Your task to perform on an android device: Open wifi settings Image 0: 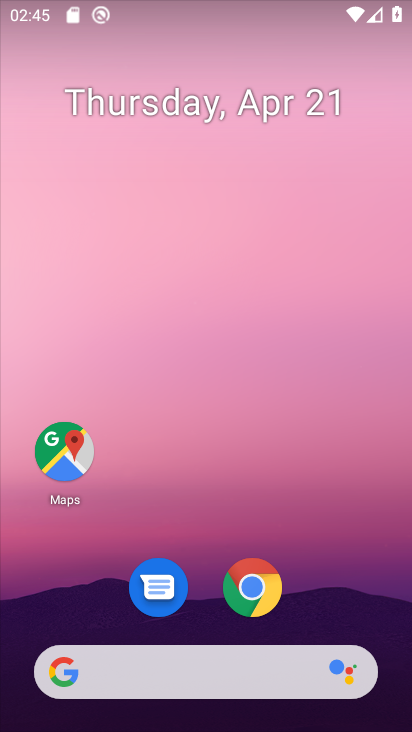
Step 0: drag from (348, 579) to (352, 147)
Your task to perform on an android device: Open wifi settings Image 1: 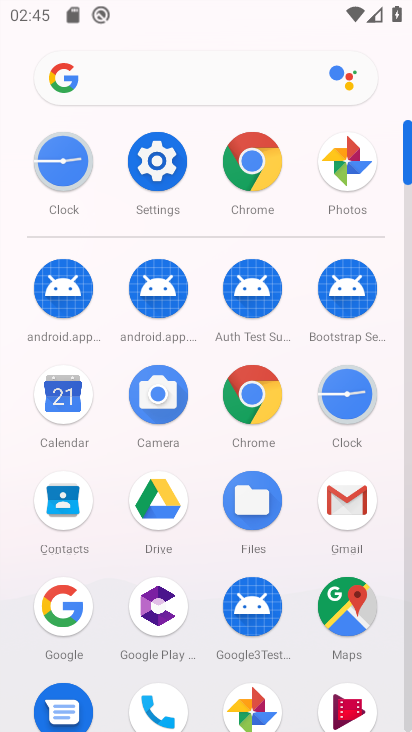
Step 1: click (160, 181)
Your task to perform on an android device: Open wifi settings Image 2: 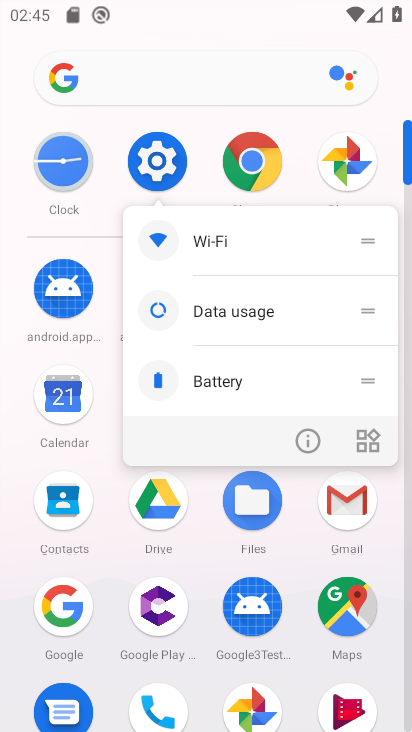
Step 2: click (160, 181)
Your task to perform on an android device: Open wifi settings Image 3: 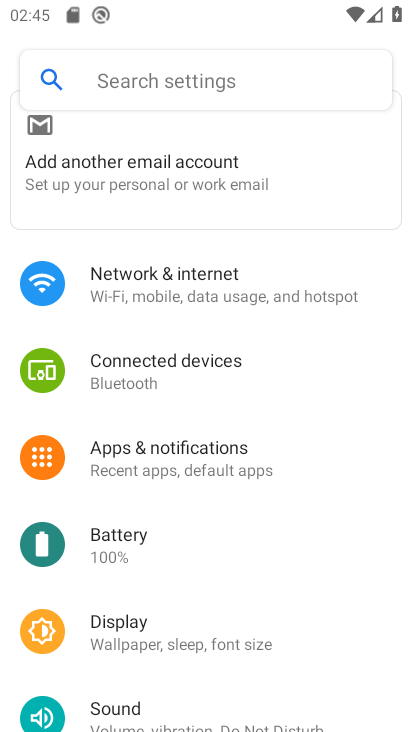
Step 3: drag from (354, 577) to (353, 385)
Your task to perform on an android device: Open wifi settings Image 4: 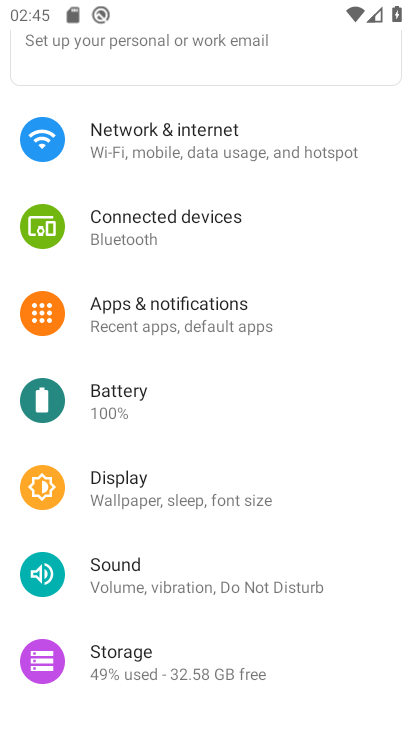
Step 4: drag from (351, 597) to (360, 371)
Your task to perform on an android device: Open wifi settings Image 5: 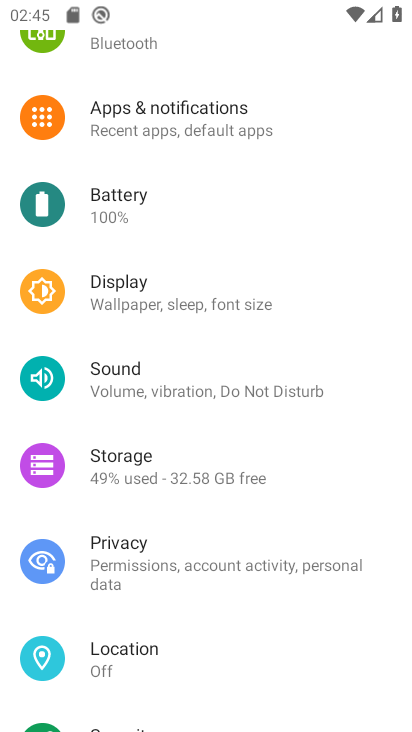
Step 5: drag from (365, 634) to (358, 430)
Your task to perform on an android device: Open wifi settings Image 6: 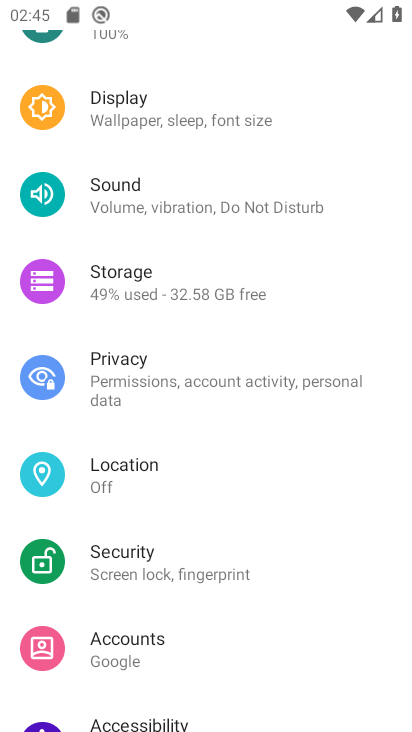
Step 6: drag from (340, 612) to (367, 404)
Your task to perform on an android device: Open wifi settings Image 7: 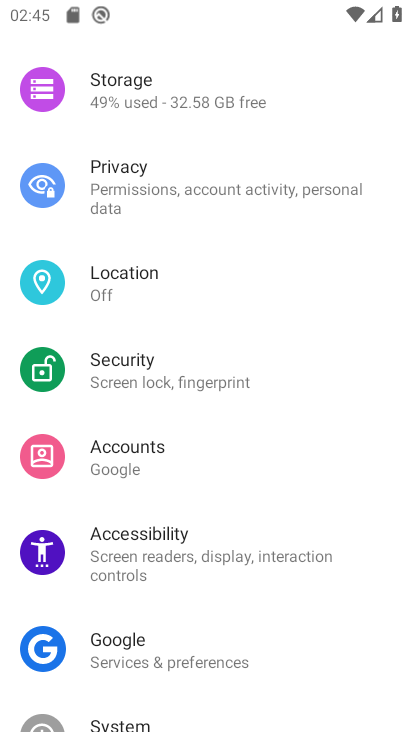
Step 7: drag from (349, 641) to (371, 367)
Your task to perform on an android device: Open wifi settings Image 8: 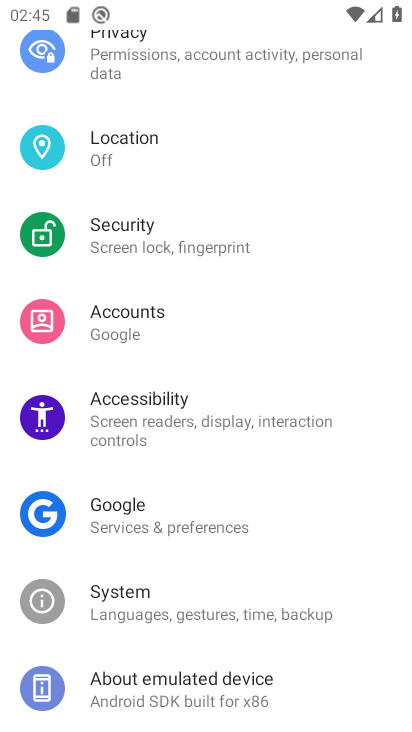
Step 8: drag from (373, 350) to (374, 482)
Your task to perform on an android device: Open wifi settings Image 9: 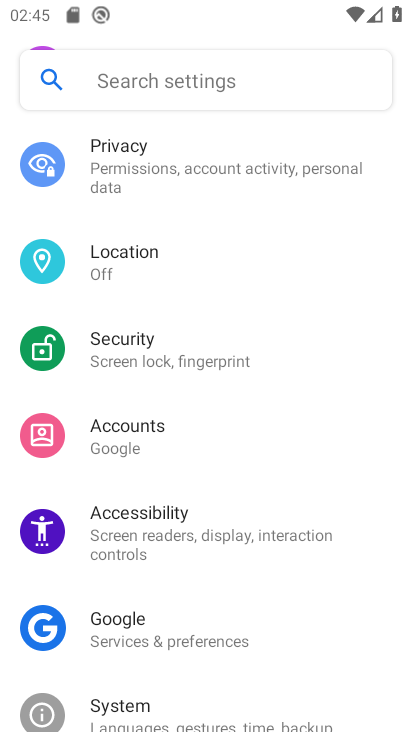
Step 9: drag from (364, 332) to (338, 511)
Your task to perform on an android device: Open wifi settings Image 10: 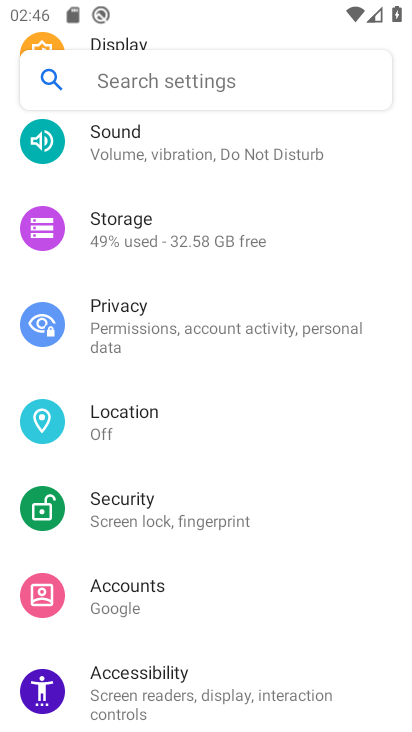
Step 10: drag from (345, 364) to (344, 481)
Your task to perform on an android device: Open wifi settings Image 11: 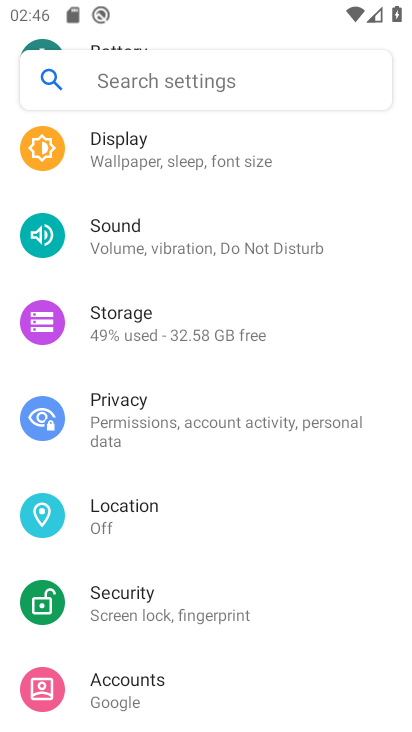
Step 11: drag from (369, 306) to (375, 493)
Your task to perform on an android device: Open wifi settings Image 12: 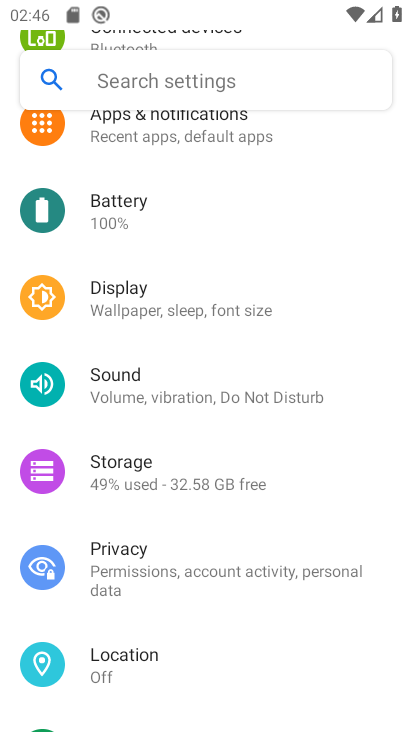
Step 12: drag from (369, 284) to (363, 421)
Your task to perform on an android device: Open wifi settings Image 13: 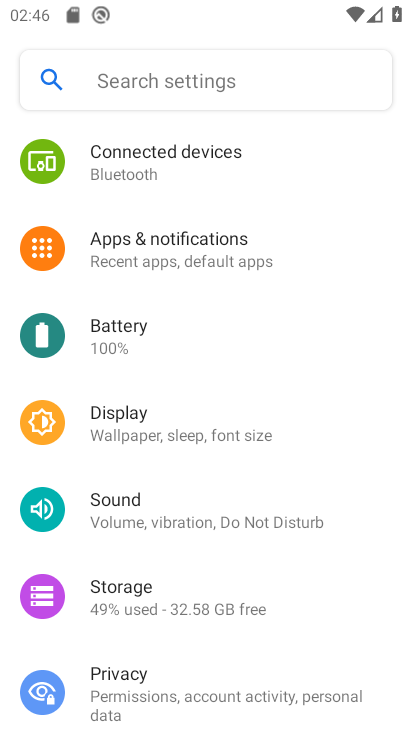
Step 13: drag from (356, 258) to (360, 404)
Your task to perform on an android device: Open wifi settings Image 14: 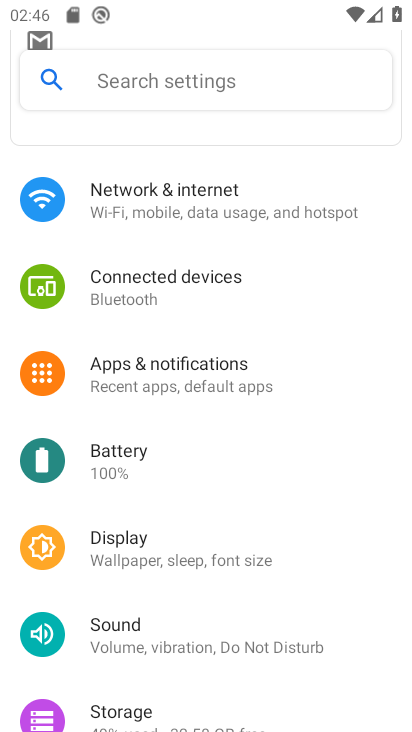
Step 14: click (311, 202)
Your task to perform on an android device: Open wifi settings Image 15: 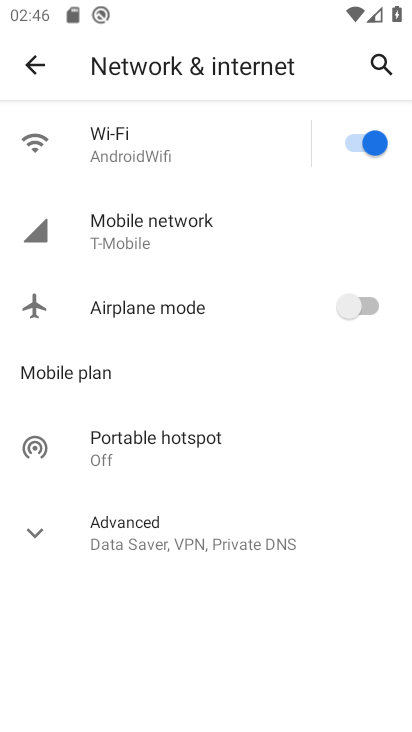
Step 15: click (217, 151)
Your task to perform on an android device: Open wifi settings Image 16: 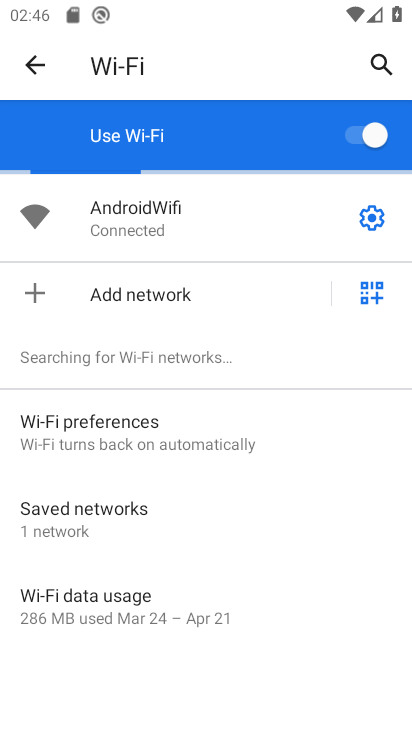
Step 16: task complete